Your task to perform on an android device: install app "TextNow: Call + Text Unlimited" Image 0: 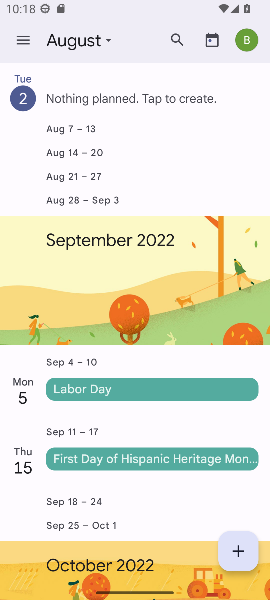
Step 0: press home button
Your task to perform on an android device: install app "TextNow: Call + Text Unlimited" Image 1: 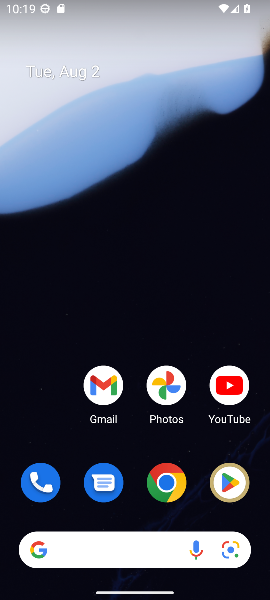
Step 1: click (236, 483)
Your task to perform on an android device: install app "TextNow: Call + Text Unlimited" Image 2: 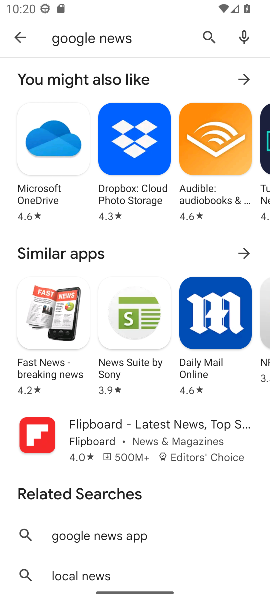
Step 2: click (163, 42)
Your task to perform on an android device: install app "TextNow: Call + Text Unlimited" Image 3: 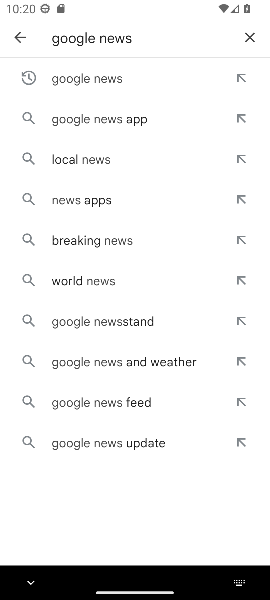
Step 3: click (243, 40)
Your task to perform on an android device: install app "TextNow: Call + Text Unlimited" Image 4: 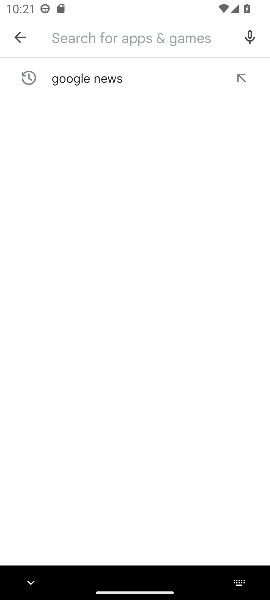
Step 4: click (151, 37)
Your task to perform on an android device: install app "TextNow: Call + Text Unlimited" Image 5: 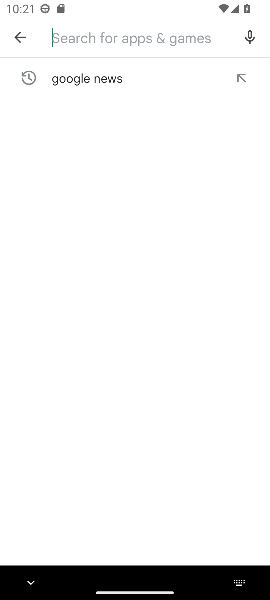
Step 5: type "TextNow: Call + Text Unlimited"
Your task to perform on an android device: install app "TextNow: Call + Text Unlimited" Image 6: 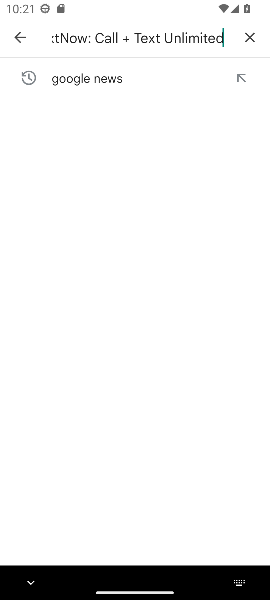
Step 6: type ""
Your task to perform on an android device: install app "TextNow: Call + Text Unlimited" Image 7: 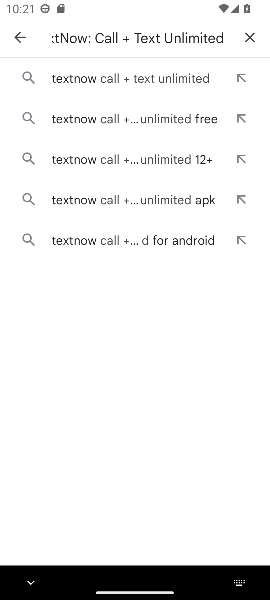
Step 7: click (162, 79)
Your task to perform on an android device: install app "TextNow: Call + Text Unlimited" Image 8: 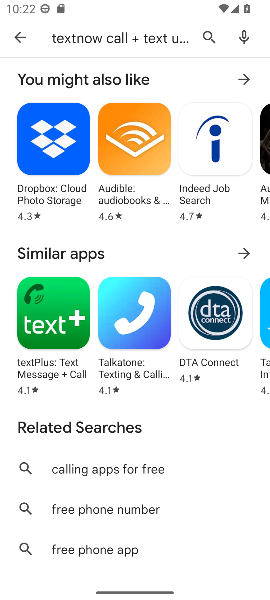
Step 8: task complete